Your task to perform on an android device: find photos in the google photos app Image 0: 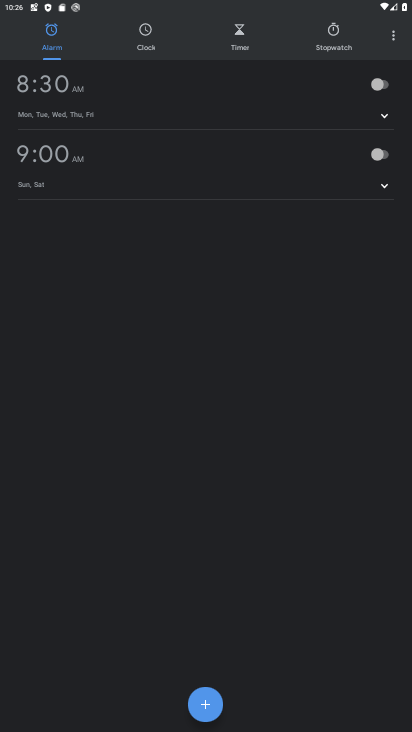
Step 0: press home button
Your task to perform on an android device: find photos in the google photos app Image 1: 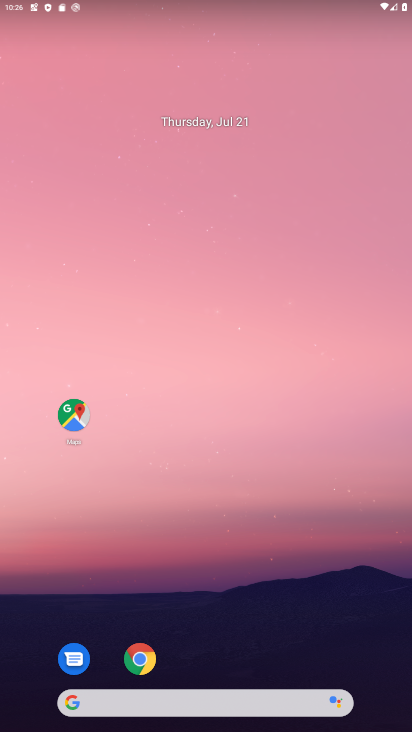
Step 1: drag from (278, 634) to (244, 5)
Your task to perform on an android device: find photos in the google photos app Image 2: 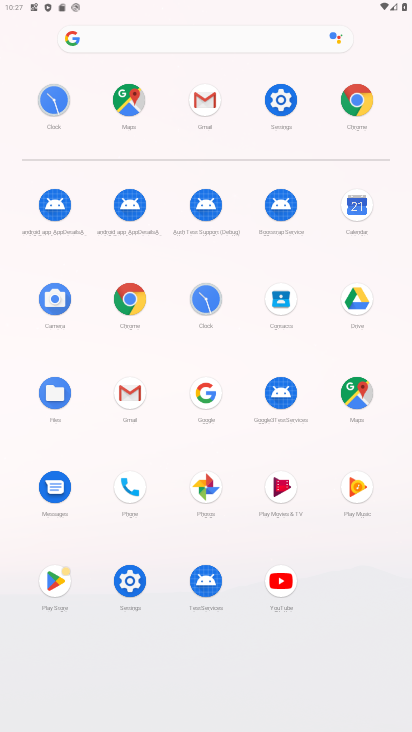
Step 2: click (206, 493)
Your task to perform on an android device: find photos in the google photos app Image 3: 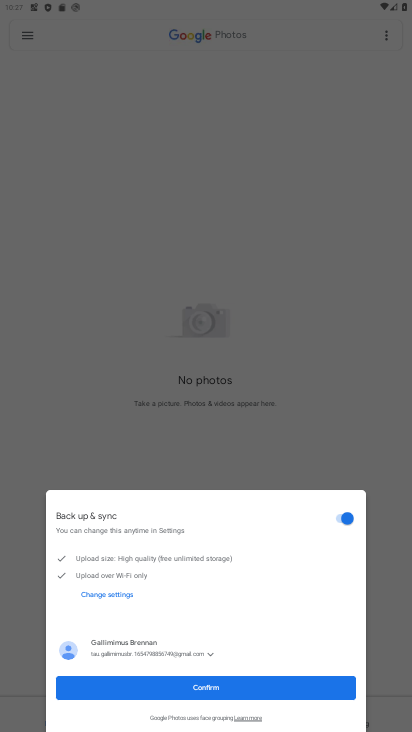
Step 3: click (215, 680)
Your task to perform on an android device: find photos in the google photos app Image 4: 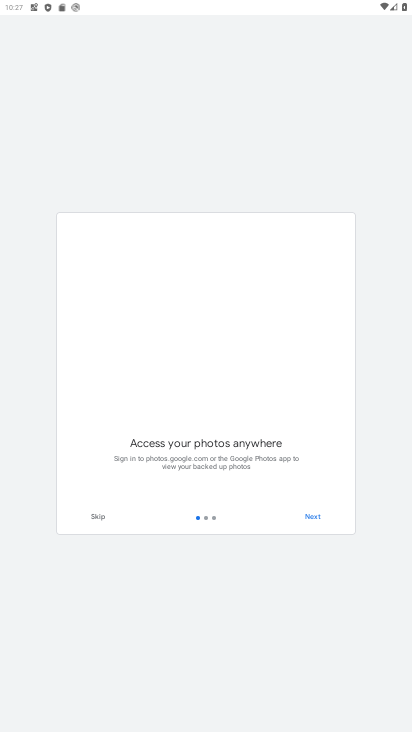
Step 4: click (323, 523)
Your task to perform on an android device: find photos in the google photos app Image 5: 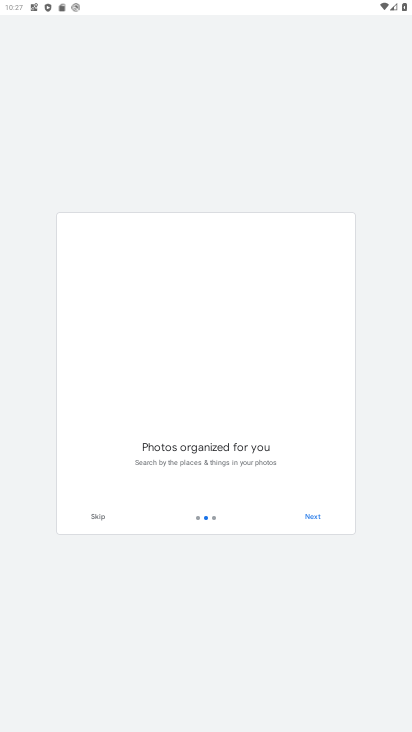
Step 5: click (323, 523)
Your task to perform on an android device: find photos in the google photos app Image 6: 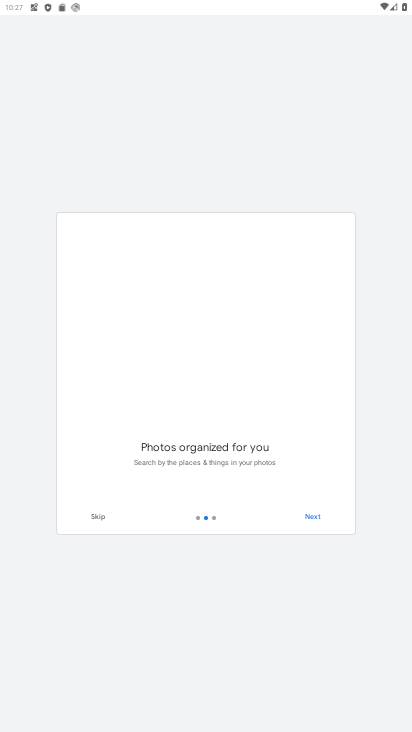
Step 6: click (323, 518)
Your task to perform on an android device: find photos in the google photos app Image 7: 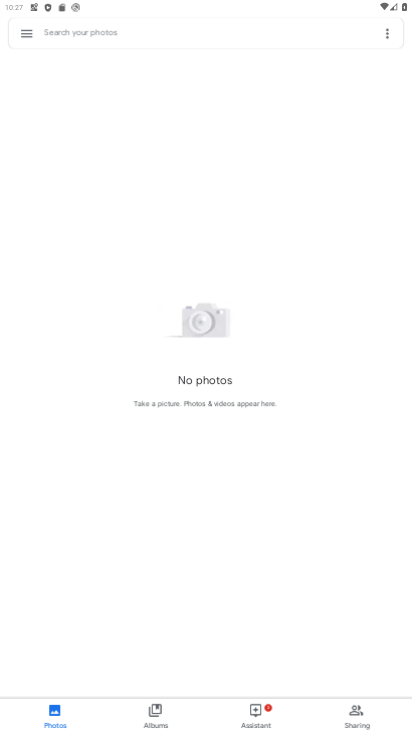
Step 7: click (323, 518)
Your task to perform on an android device: find photos in the google photos app Image 8: 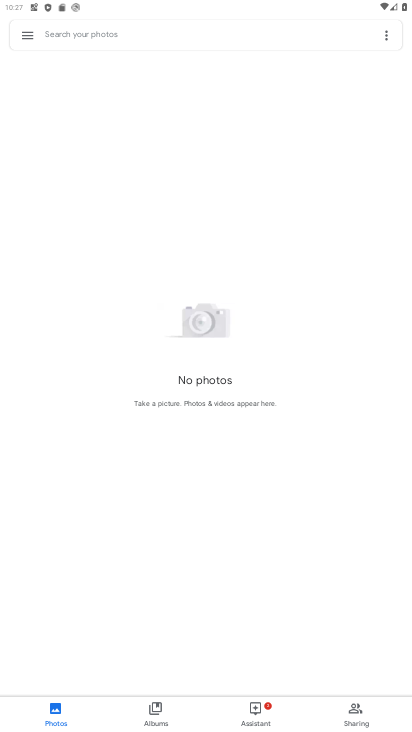
Step 8: task complete